Your task to perform on an android device: turn off location history Image 0: 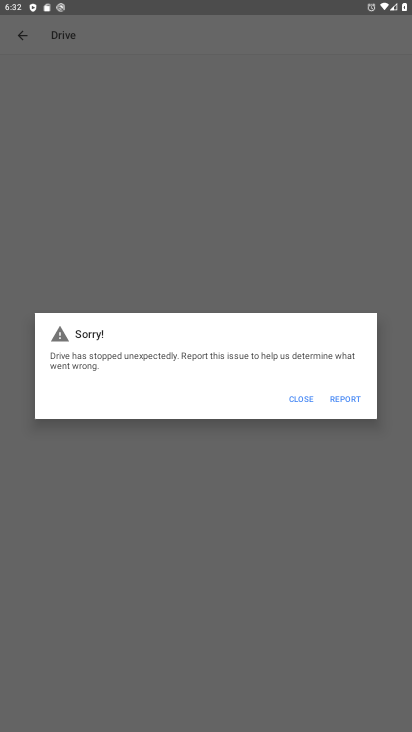
Step 0: press home button
Your task to perform on an android device: turn off location history Image 1: 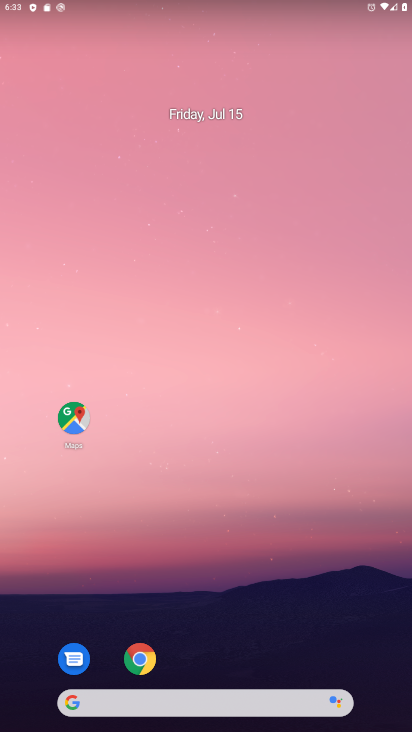
Step 1: click (73, 417)
Your task to perform on an android device: turn off location history Image 2: 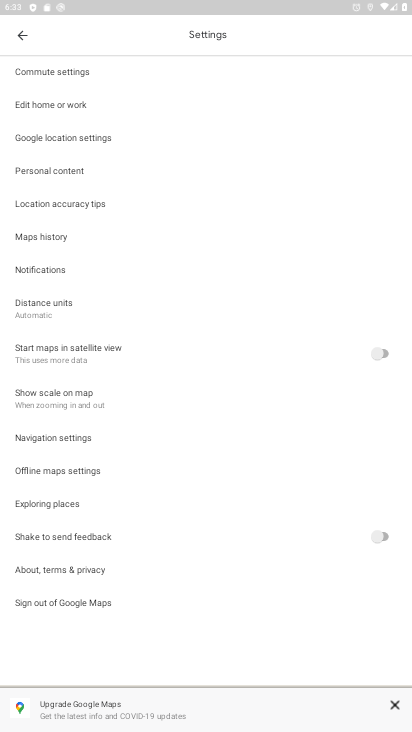
Step 2: click (47, 159)
Your task to perform on an android device: turn off location history Image 3: 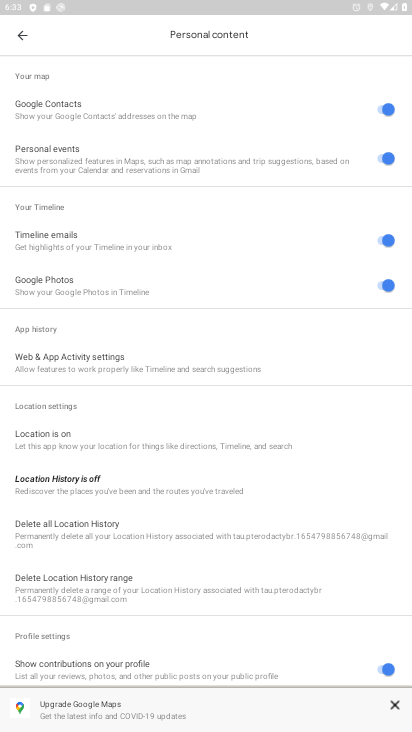
Step 3: click (89, 476)
Your task to perform on an android device: turn off location history Image 4: 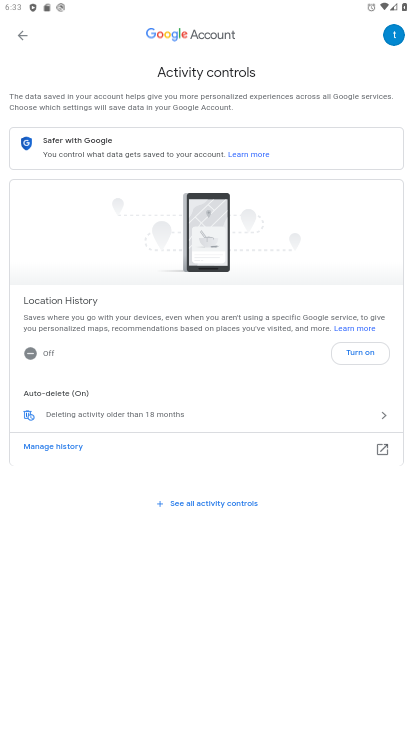
Step 4: task complete